Your task to perform on an android device: Open accessibility settings Image 0: 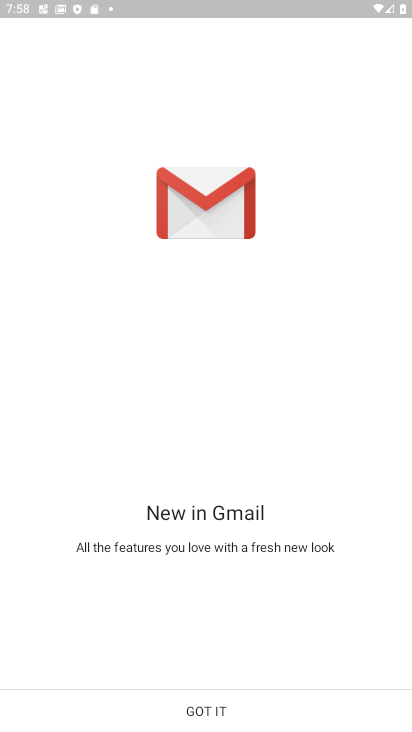
Step 0: click (179, 721)
Your task to perform on an android device: Open accessibility settings Image 1: 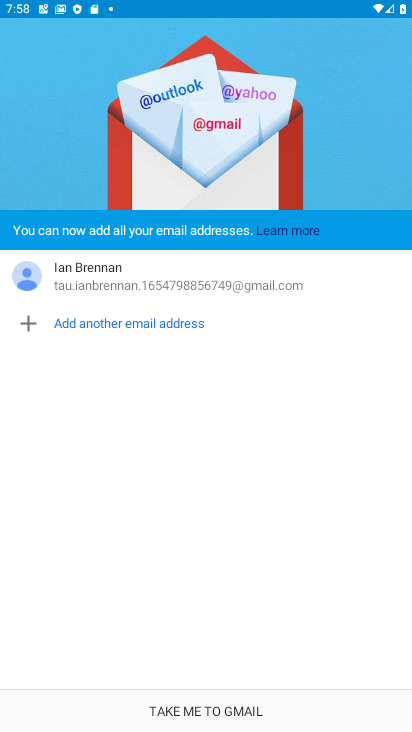
Step 1: press home button
Your task to perform on an android device: Open accessibility settings Image 2: 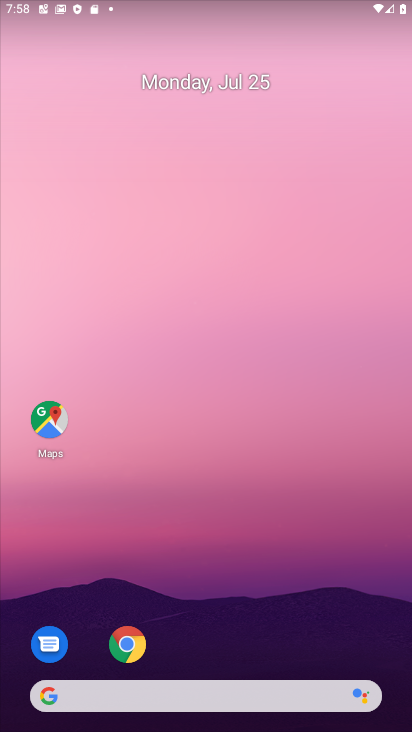
Step 2: drag from (240, 617) to (263, 50)
Your task to perform on an android device: Open accessibility settings Image 3: 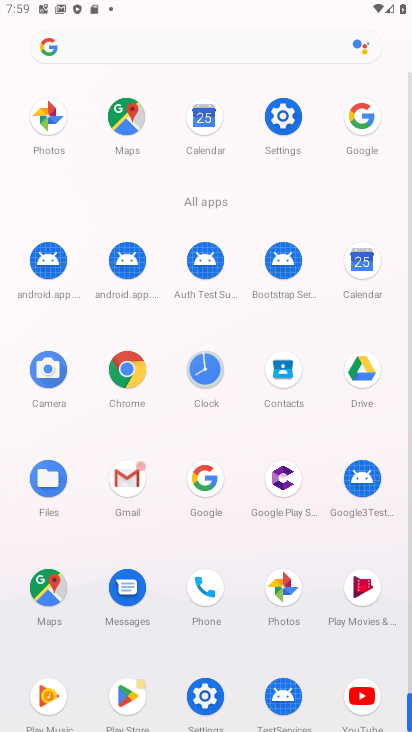
Step 3: click (286, 127)
Your task to perform on an android device: Open accessibility settings Image 4: 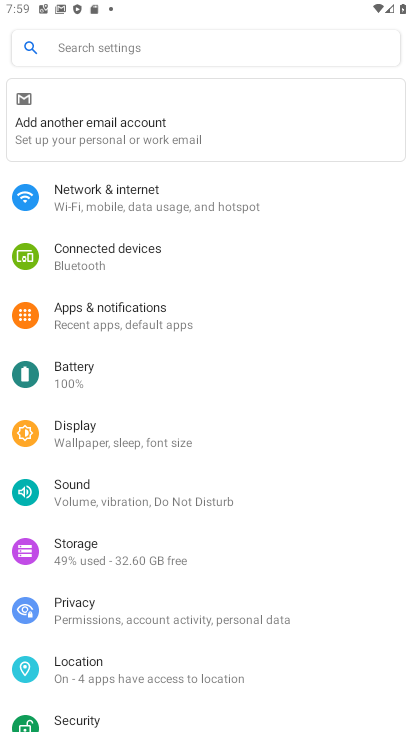
Step 4: drag from (245, 585) to (242, 163)
Your task to perform on an android device: Open accessibility settings Image 5: 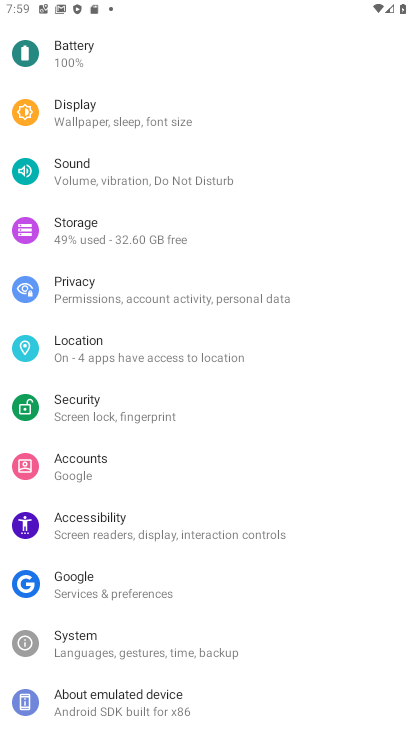
Step 5: click (167, 533)
Your task to perform on an android device: Open accessibility settings Image 6: 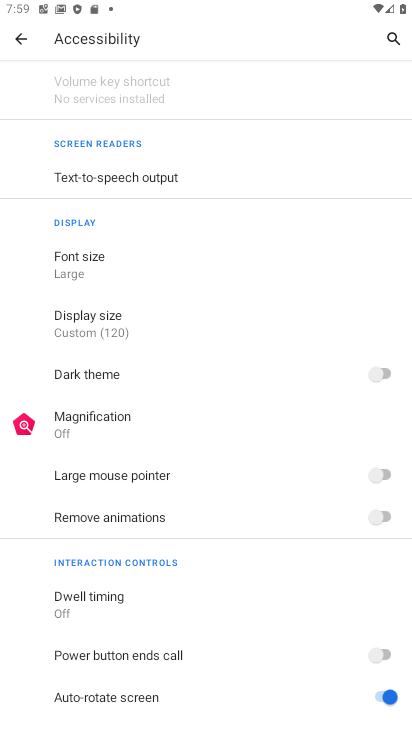
Step 6: task complete